Your task to perform on an android device: What's the latest video from GameSpot Reviews? Image 0: 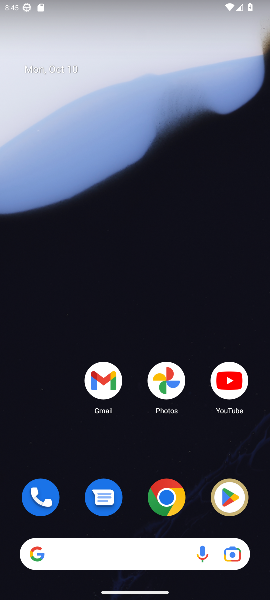
Step 0: drag from (133, 414) to (137, 206)
Your task to perform on an android device: What's the latest video from GameSpot Reviews? Image 1: 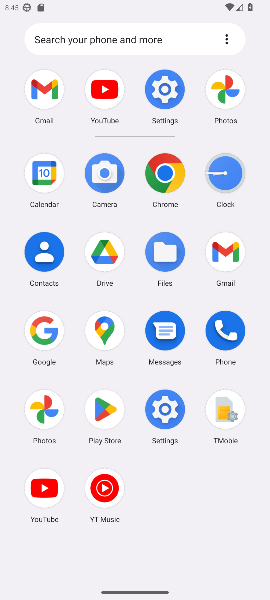
Step 1: click (41, 324)
Your task to perform on an android device: What's the latest video from GameSpot Reviews? Image 2: 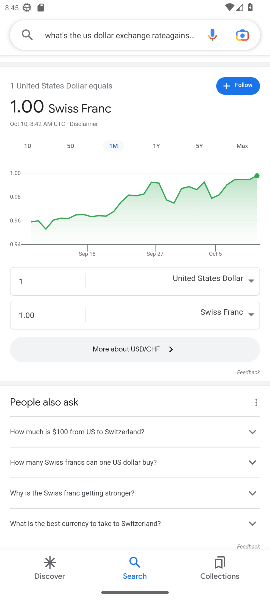
Step 2: click (98, 32)
Your task to perform on an android device: What's the latest video from GameSpot Reviews? Image 3: 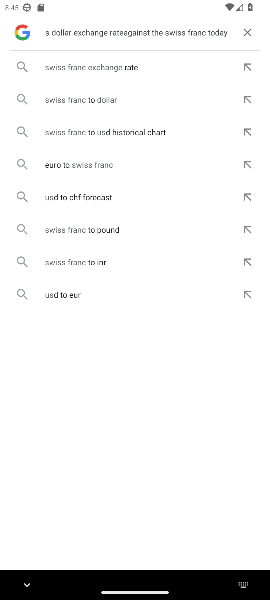
Step 3: click (243, 33)
Your task to perform on an android device: What's the latest video from GameSpot Reviews? Image 4: 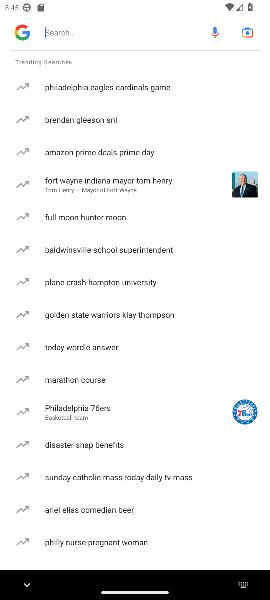
Step 4: click (102, 16)
Your task to perform on an android device: What's the latest video from GameSpot Reviews? Image 5: 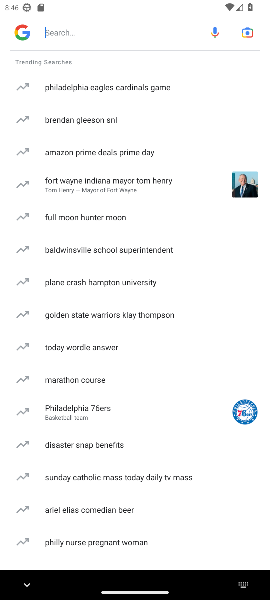
Step 5: type "What's the latest video from GameSpot Reviews? "
Your task to perform on an android device: What's the latest video from GameSpot Reviews? Image 6: 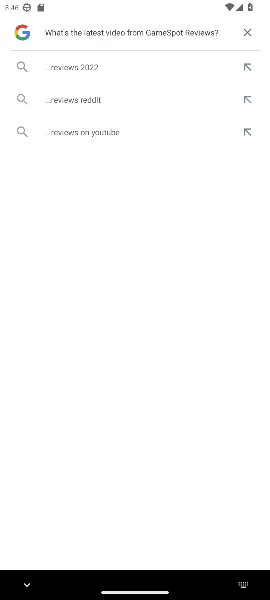
Step 6: click (95, 65)
Your task to perform on an android device: What's the latest video from GameSpot Reviews? Image 7: 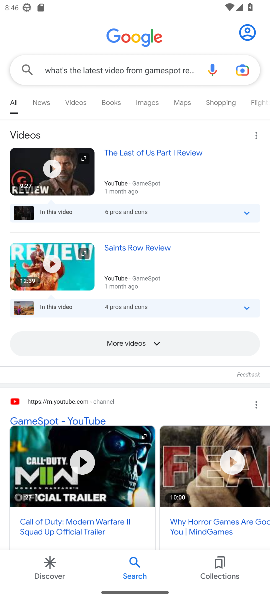
Step 7: task complete